Your task to perform on an android device: What's the weather going to be tomorrow? Image 0: 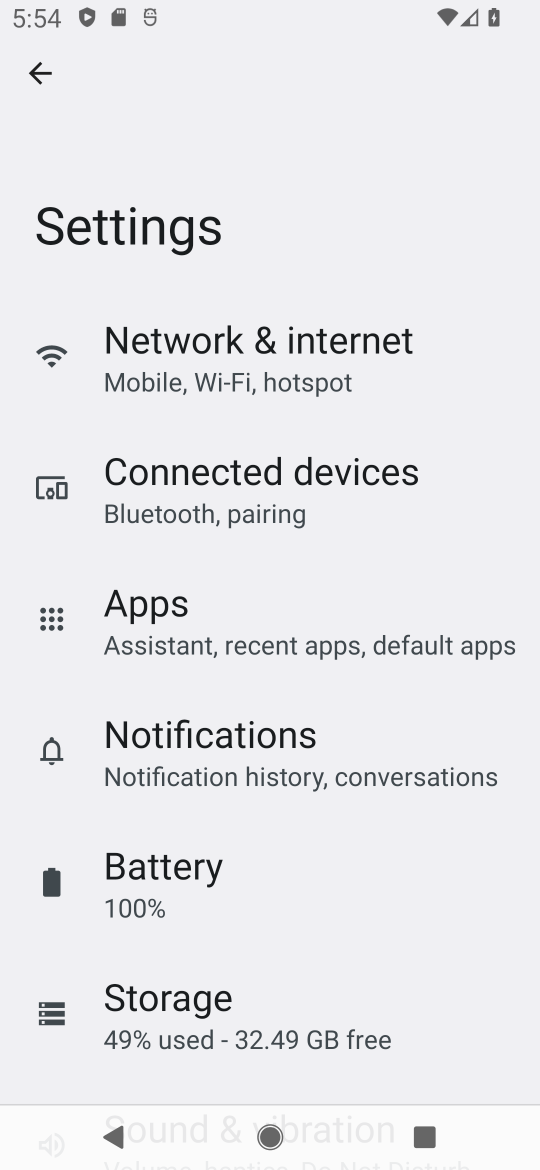
Step 0: press home button
Your task to perform on an android device: What's the weather going to be tomorrow? Image 1: 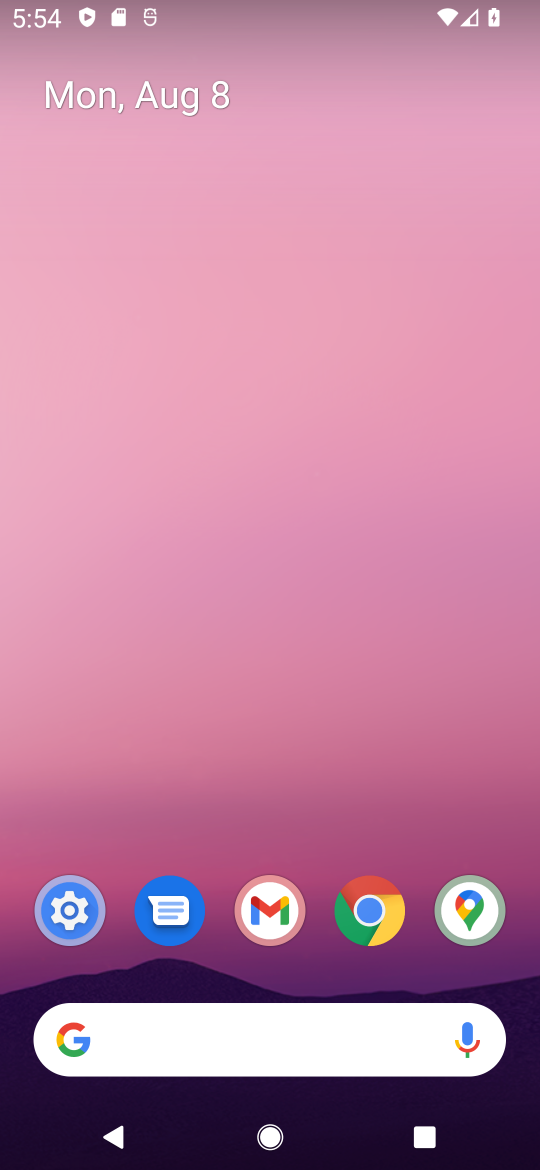
Step 1: drag from (204, 1041) to (293, 321)
Your task to perform on an android device: What's the weather going to be tomorrow? Image 2: 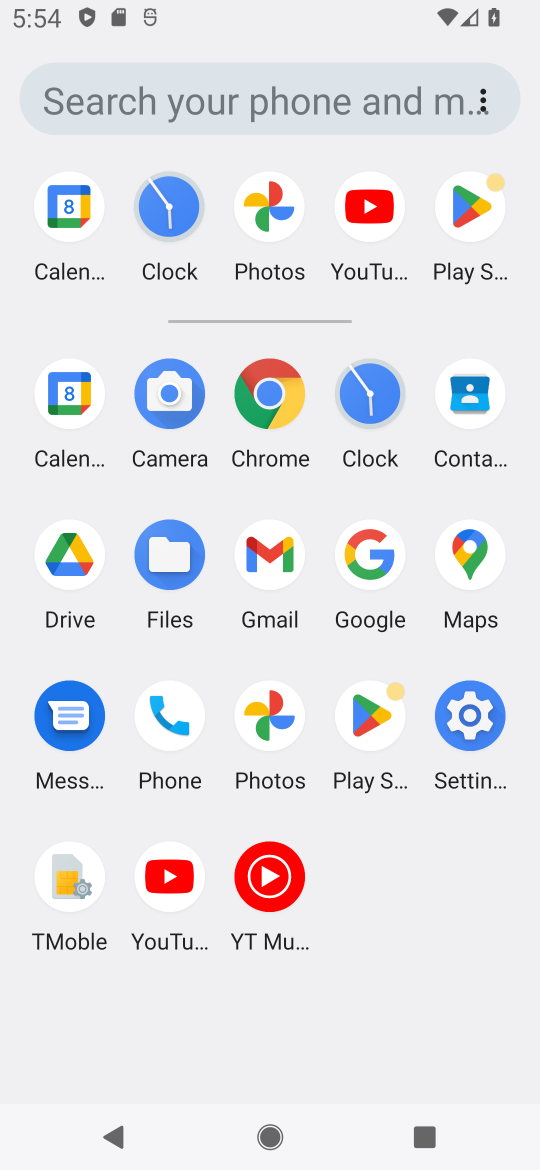
Step 2: click (365, 555)
Your task to perform on an android device: What's the weather going to be tomorrow? Image 3: 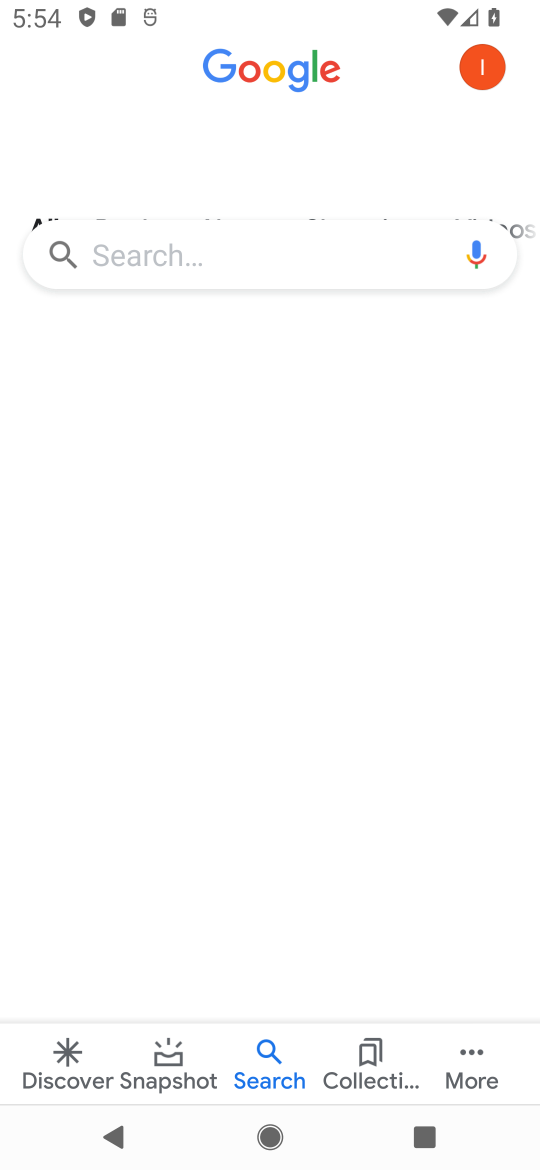
Step 3: click (254, 265)
Your task to perform on an android device: What's the weather going to be tomorrow? Image 4: 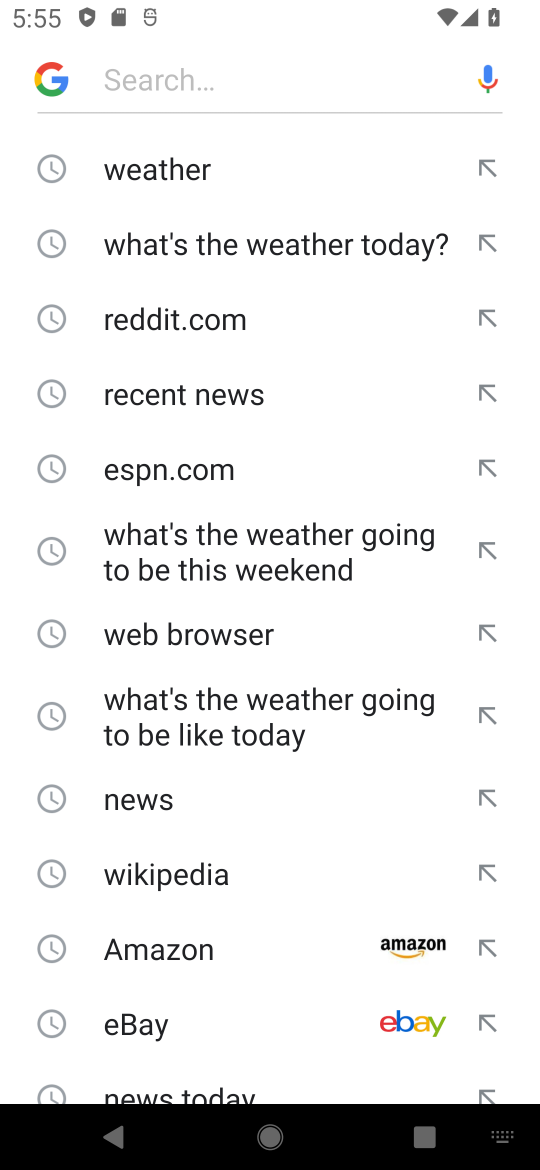
Step 4: type "What's the weather going to be tomorrow?"
Your task to perform on an android device: What's the weather going to be tomorrow? Image 5: 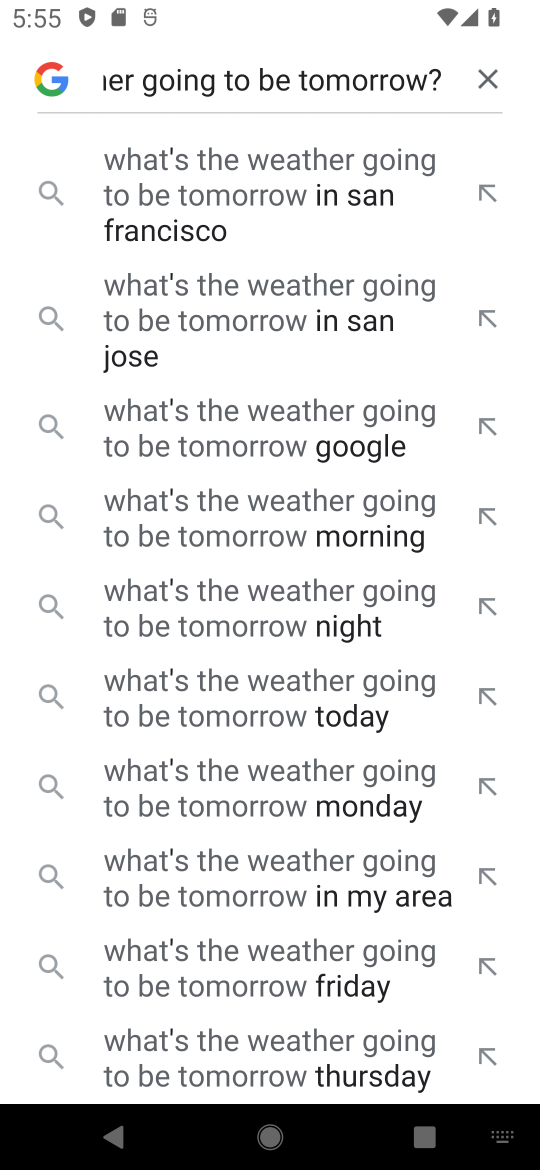
Step 5: click (251, 202)
Your task to perform on an android device: What's the weather going to be tomorrow? Image 6: 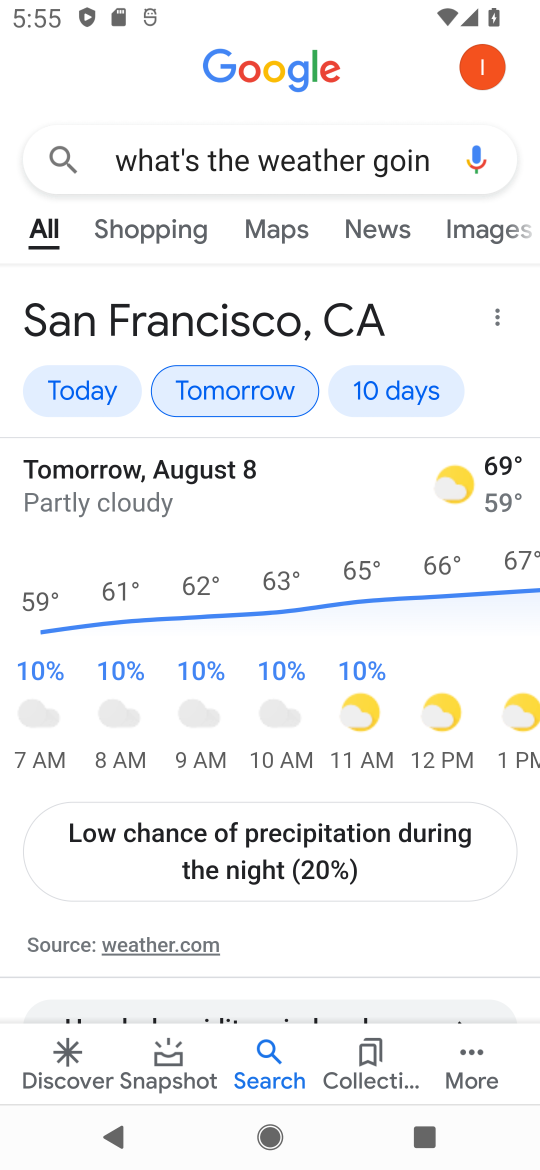
Step 6: task complete